Your task to perform on an android device: What's the weather going to be this weekend? Image 0: 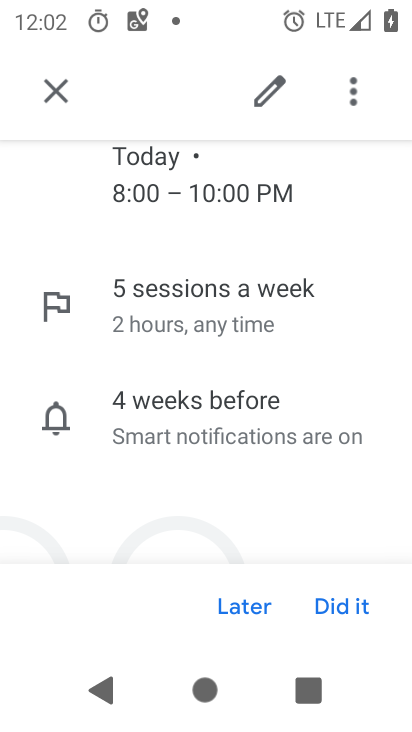
Step 0: press home button
Your task to perform on an android device: What's the weather going to be this weekend? Image 1: 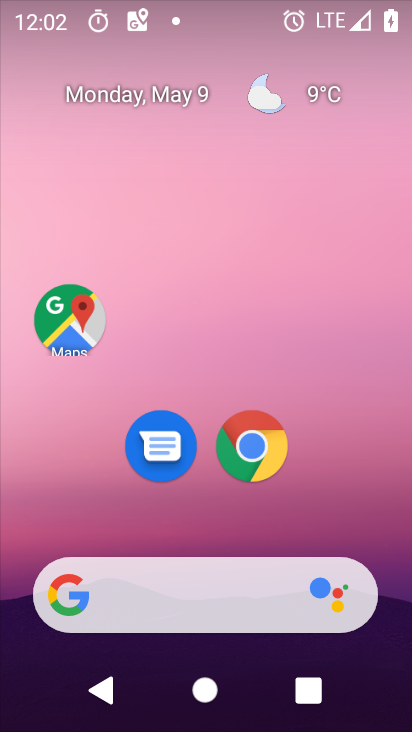
Step 1: click (321, 105)
Your task to perform on an android device: What's the weather going to be this weekend? Image 2: 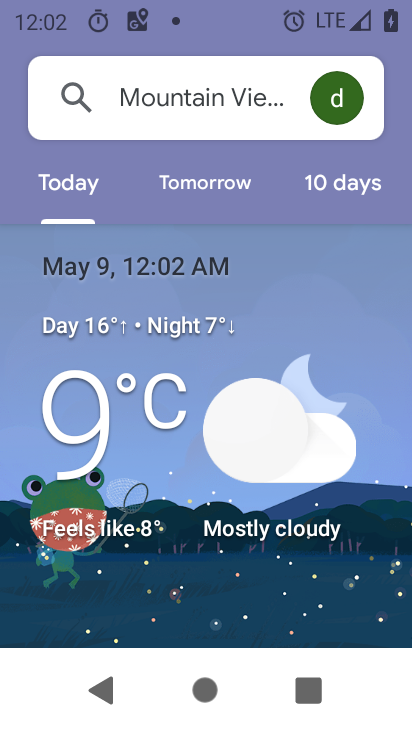
Step 2: click (364, 190)
Your task to perform on an android device: What's the weather going to be this weekend? Image 3: 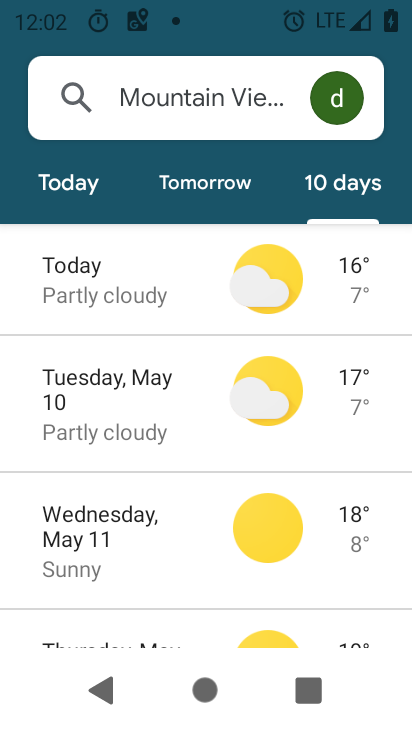
Step 3: task complete